Your task to perform on an android device: Go to Yahoo.com Image 0: 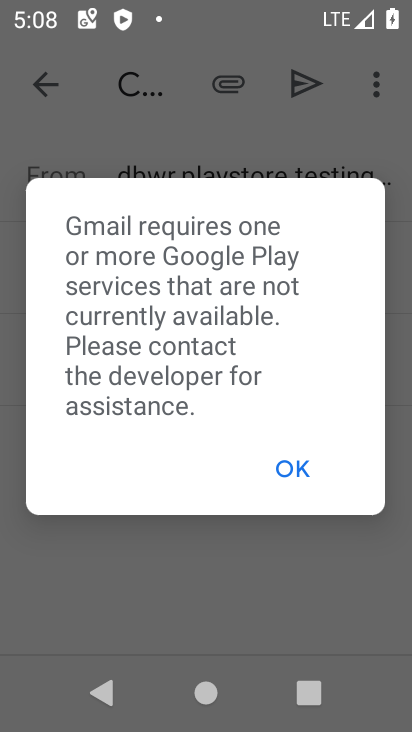
Step 0: press home button
Your task to perform on an android device: Go to Yahoo.com Image 1: 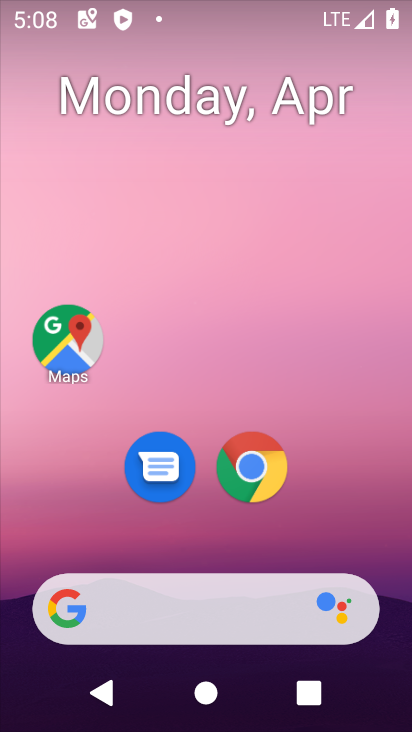
Step 1: drag from (247, 529) to (309, 3)
Your task to perform on an android device: Go to Yahoo.com Image 2: 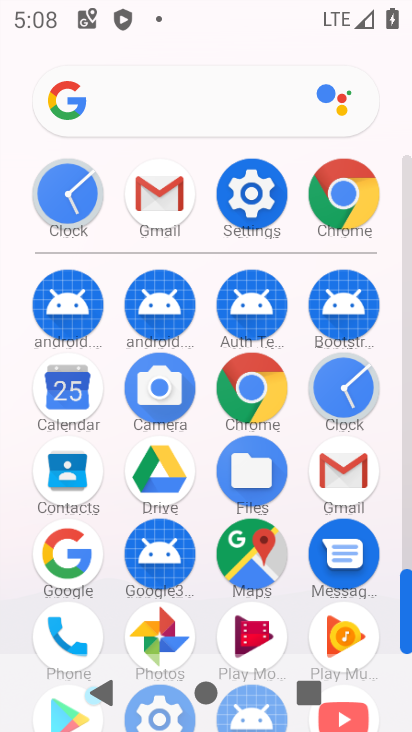
Step 2: click (257, 389)
Your task to perform on an android device: Go to Yahoo.com Image 3: 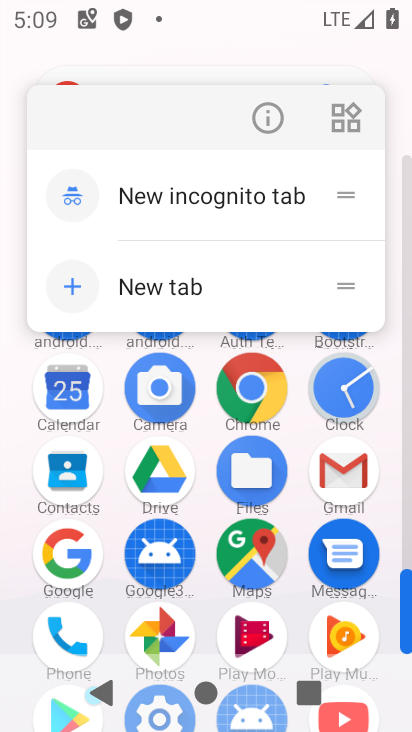
Step 3: click (257, 389)
Your task to perform on an android device: Go to Yahoo.com Image 4: 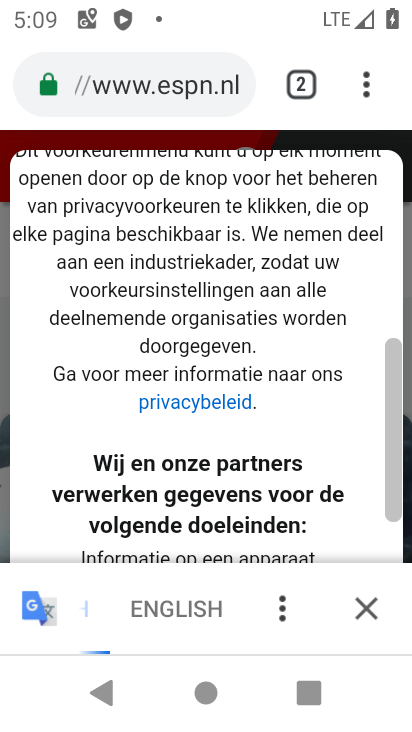
Step 4: click (221, 78)
Your task to perform on an android device: Go to Yahoo.com Image 5: 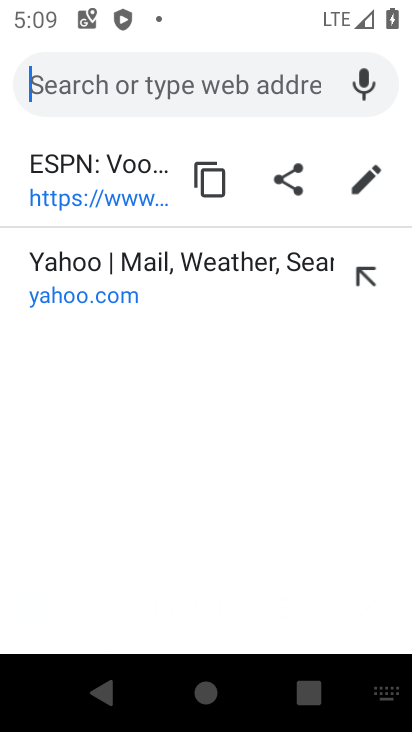
Step 5: type "yahoo.com"
Your task to perform on an android device: Go to Yahoo.com Image 6: 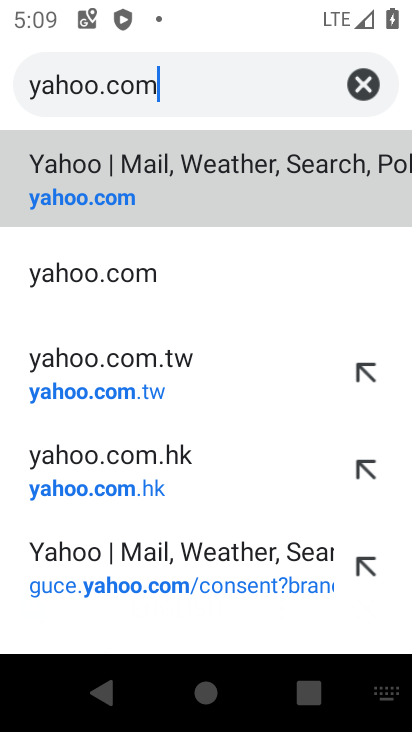
Step 6: click (370, 185)
Your task to perform on an android device: Go to Yahoo.com Image 7: 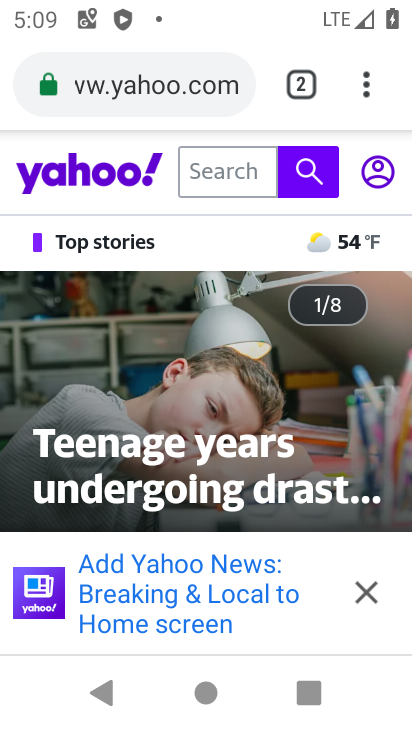
Step 7: task complete